Your task to perform on an android device: Open Google Chrome and click the shortcut for Amazon.com Image 0: 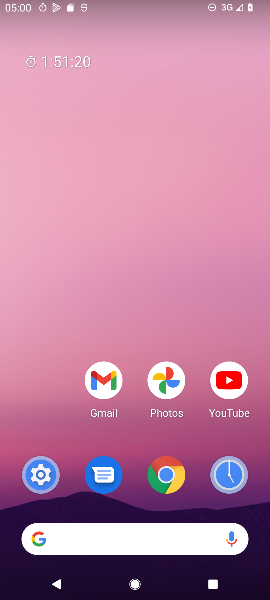
Step 0: press home button
Your task to perform on an android device: Open Google Chrome and click the shortcut for Amazon.com Image 1: 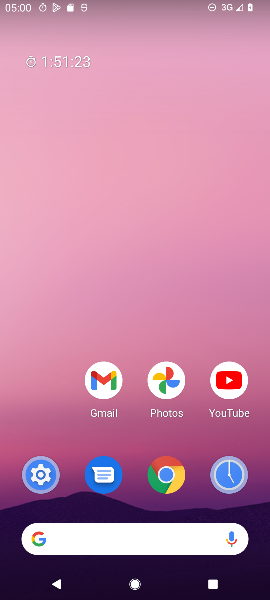
Step 1: drag from (57, 430) to (67, 230)
Your task to perform on an android device: Open Google Chrome and click the shortcut for Amazon.com Image 2: 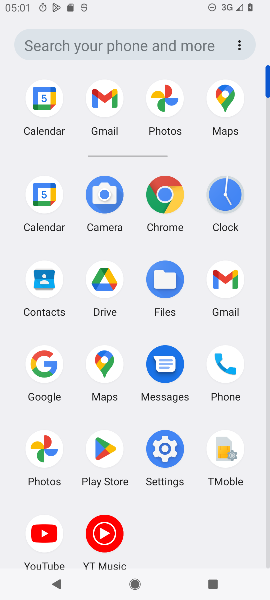
Step 2: click (166, 196)
Your task to perform on an android device: Open Google Chrome and click the shortcut for Amazon.com Image 3: 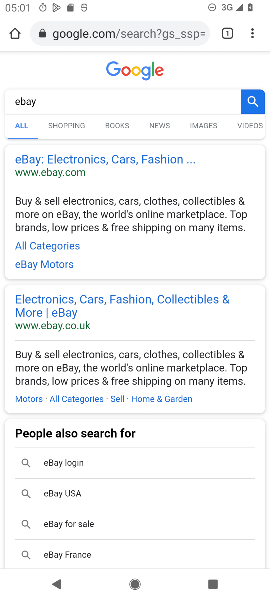
Step 3: press back button
Your task to perform on an android device: Open Google Chrome and click the shortcut for Amazon.com Image 4: 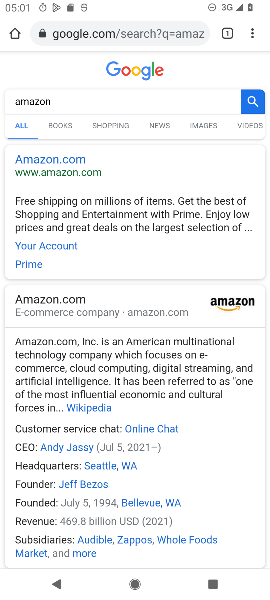
Step 4: press back button
Your task to perform on an android device: Open Google Chrome and click the shortcut for Amazon.com Image 5: 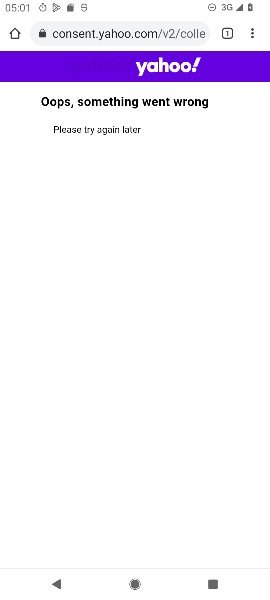
Step 5: press back button
Your task to perform on an android device: Open Google Chrome and click the shortcut for Amazon.com Image 6: 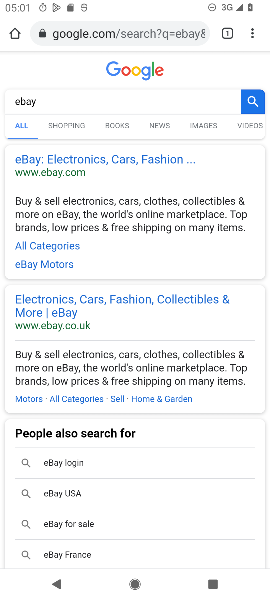
Step 6: press back button
Your task to perform on an android device: Open Google Chrome and click the shortcut for Amazon.com Image 7: 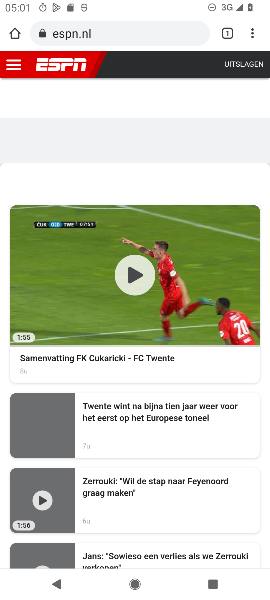
Step 7: press back button
Your task to perform on an android device: Open Google Chrome and click the shortcut for Amazon.com Image 8: 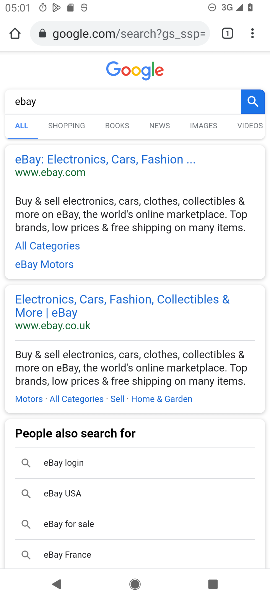
Step 8: press back button
Your task to perform on an android device: Open Google Chrome and click the shortcut for Amazon.com Image 9: 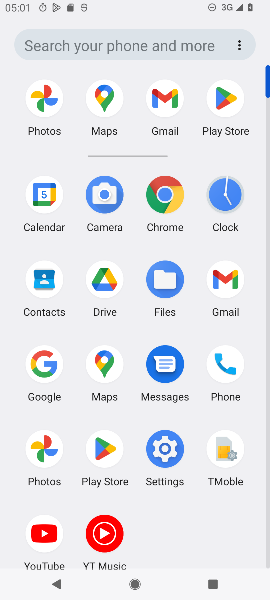
Step 9: click (165, 191)
Your task to perform on an android device: Open Google Chrome and click the shortcut for Amazon.com Image 10: 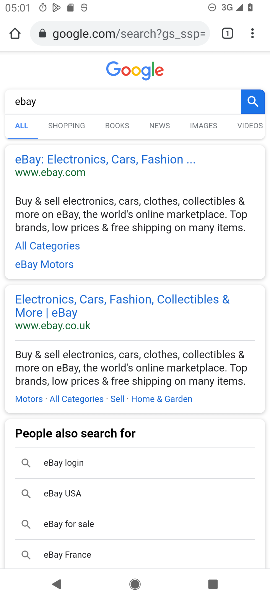
Step 10: task complete